Your task to perform on an android device: turn off airplane mode Image 0: 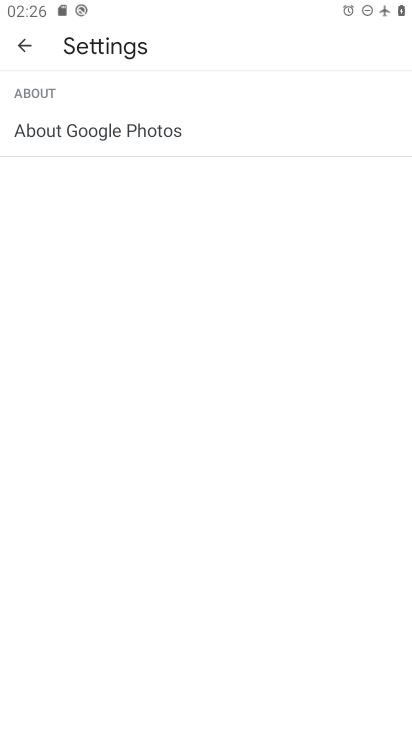
Step 0: press home button
Your task to perform on an android device: turn off airplane mode Image 1: 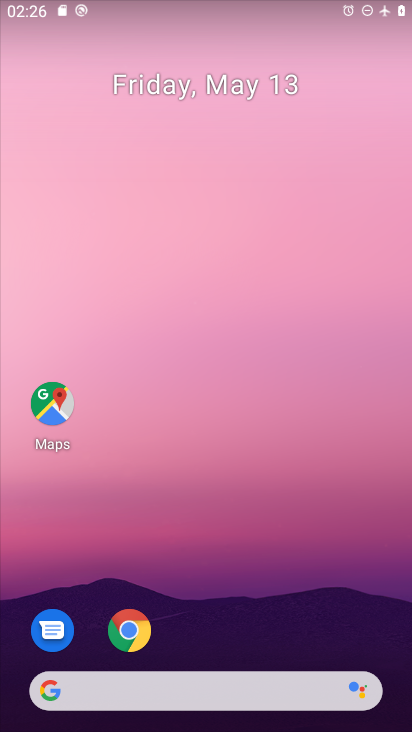
Step 1: drag from (330, 708) to (244, 142)
Your task to perform on an android device: turn off airplane mode Image 2: 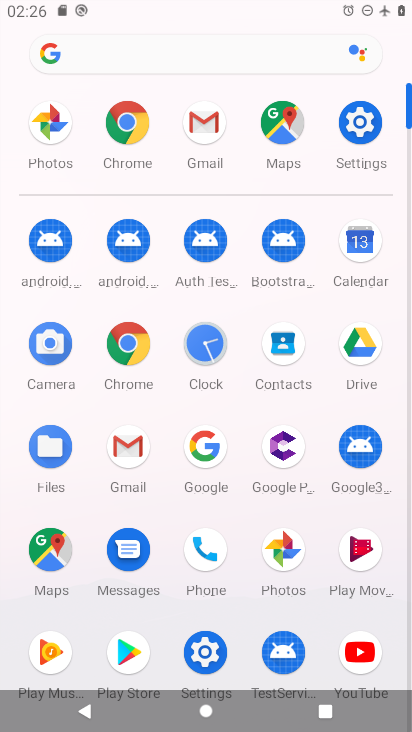
Step 2: click (348, 114)
Your task to perform on an android device: turn off airplane mode Image 3: 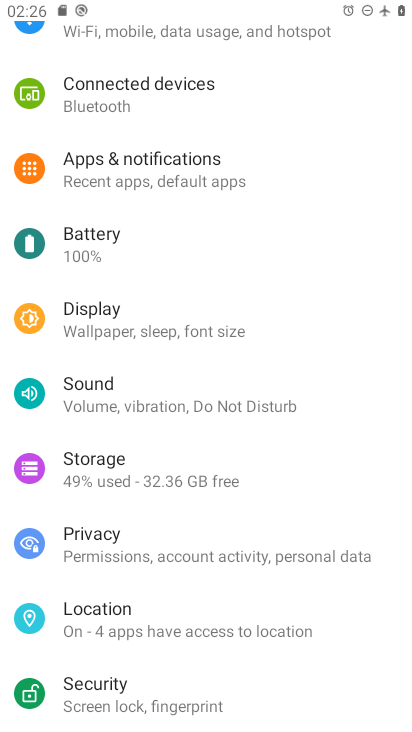
Step 3: drag from (205, 174) to (265, 419)
Your task to perform on an android device: turn off airplane mode Image 4: 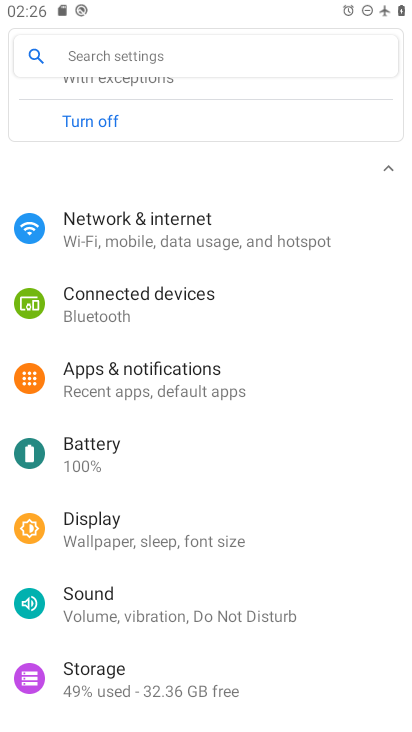
Step 4: click (165, 229)
Your task to perform on an android device: turn off airplane mode Image 5: 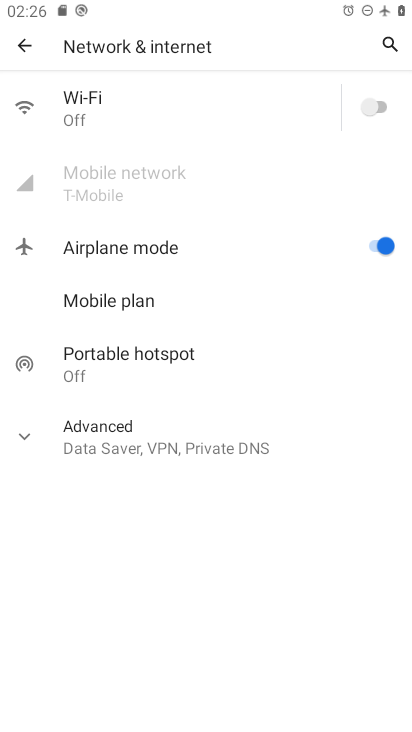
Step 5: click (351, 242)
Your task to perform on an android device: turn off airplane mode Image 6: 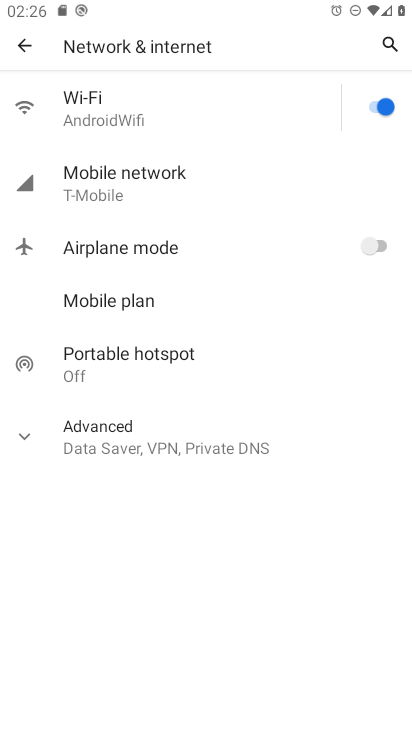
Step 6: task complete